Your task to perform on an android device: search for starred emails in the gmail app Image 0: 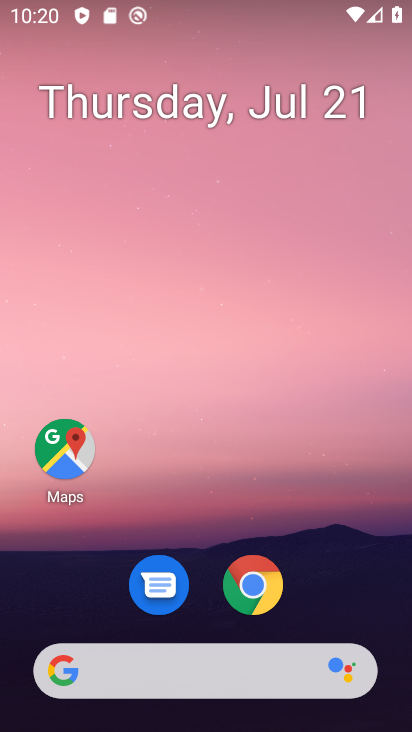
Step 0: drag from (182, 661) to (269, 186)
Your task to perform on an android device: search for starred emails in the gmail app Image 1: 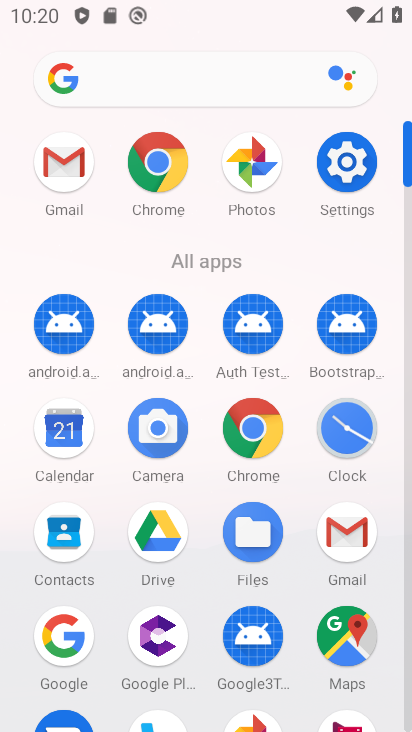
Step 1: click (66, 168)
Your task to perform on an android device: search for starred emails in the gmail app Image 2: 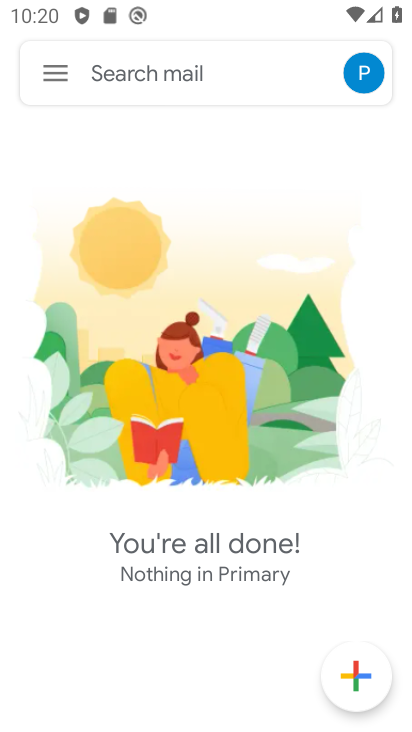
Step 2: click (56, 71)
Your task to perform on an android device: search for starred emails in the gmail app Image 3: 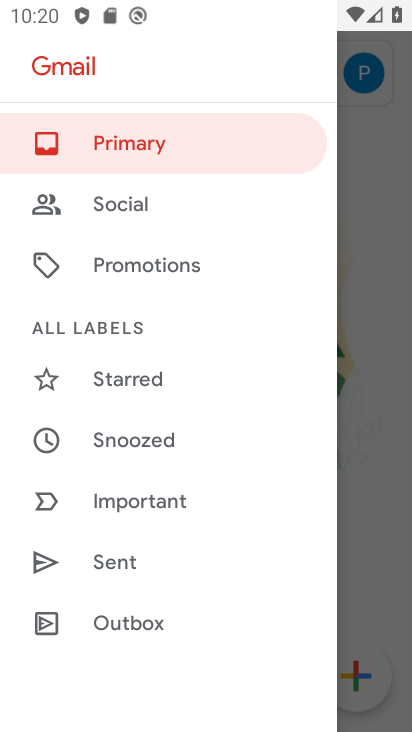
Step 3: click (145, 383)
Your task to perform on an android device: search for starred emails in the gmail app Image 4: 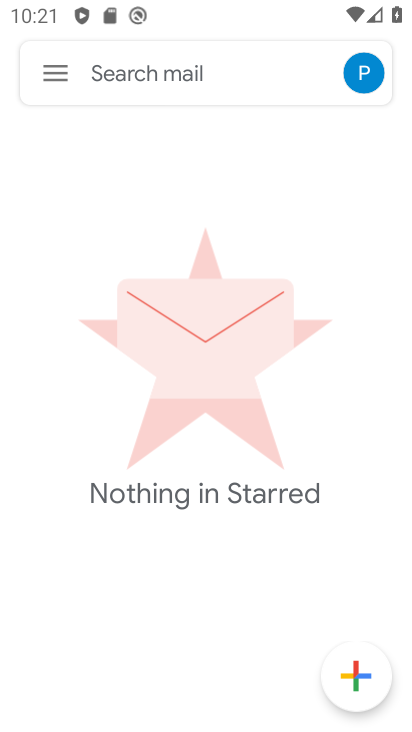
Step 4: task complete